Your task to perform on an android device: Go to Wikipedia Image 0: 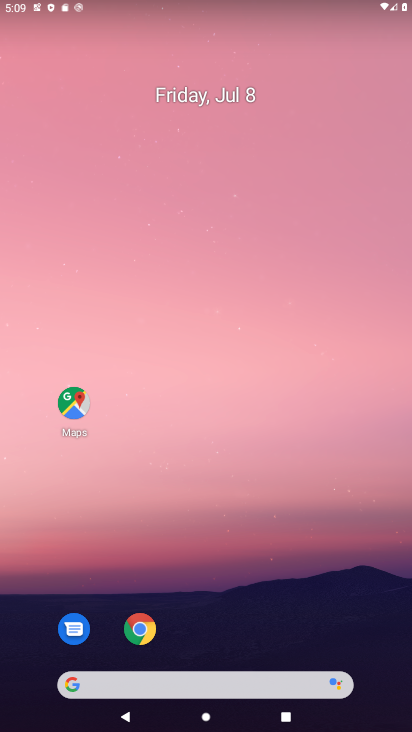
Step 0: press home button
Your task to perform on an android device: Go to Wikipedia Image 1: 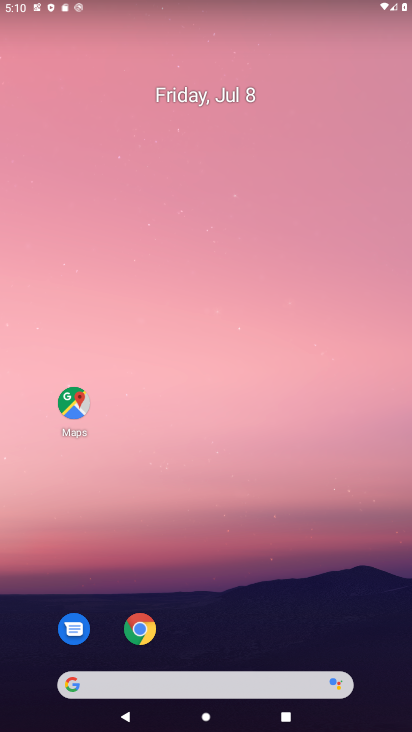
Step 1: click (70, 693)
Your task to perform on an android device: Go to Wikipedia Image 2: 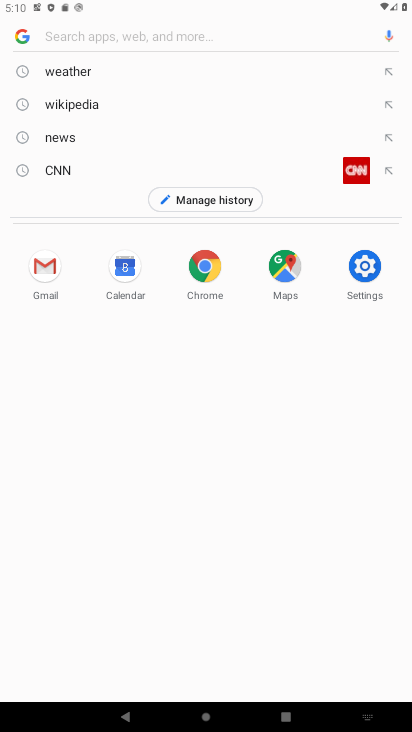
Step 2: click (72, 106)
Your task to perform on an android device: Go to Wikipedia Image 3: 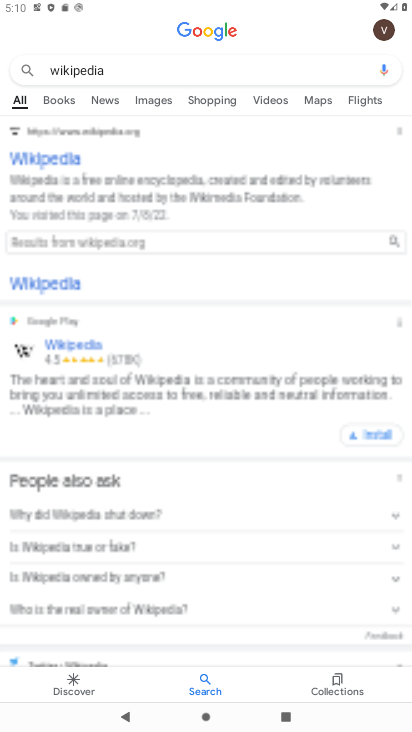
Step 3: click (38, 155)
Your task to perform on an android device: Go to Wikipedia Image 4: 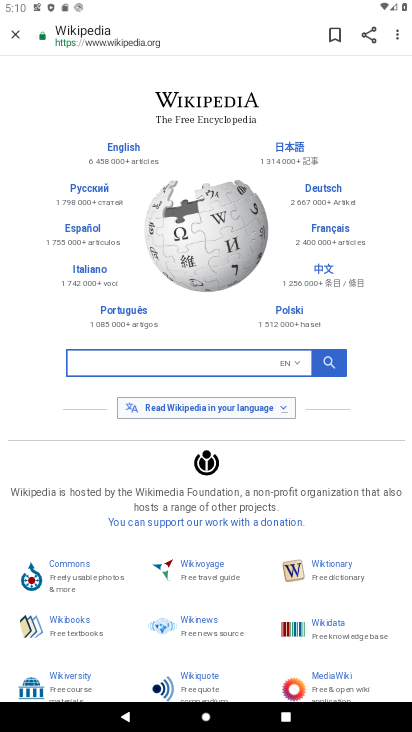
Step 4: task complete